Your task to perform on an android device: turn off translation in the chrome app Image 0: 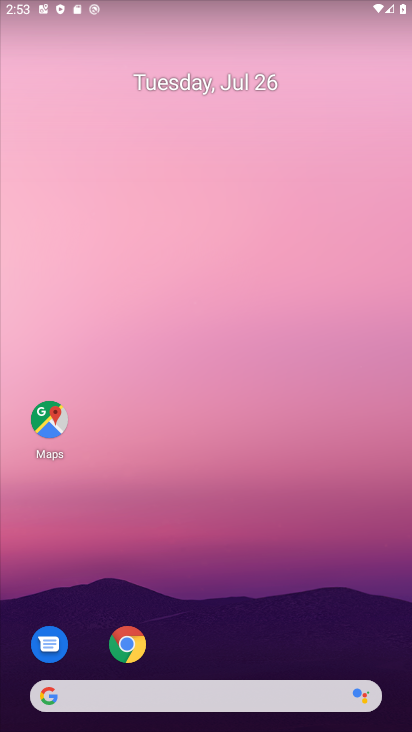
Step 0: press home button
Your task to perform on an android device: turn off translation in the chrome app Image 1: 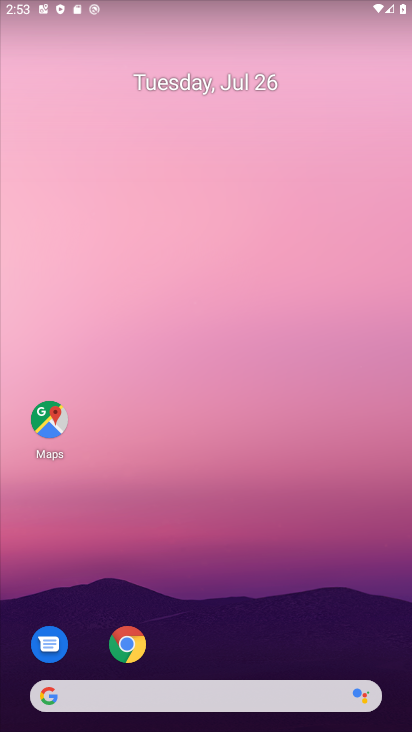
Step 1: click (127, 655)
Your task to perform on an android device: turn off translation in the chrome app Image 2: 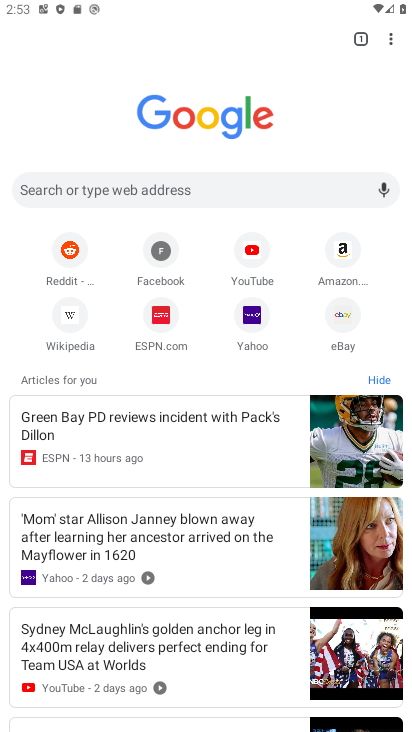
Step 2: drag from (393, 38) to (259, 329)
Your task to perform on an android device: turn off translation in the chrome app Image 3: 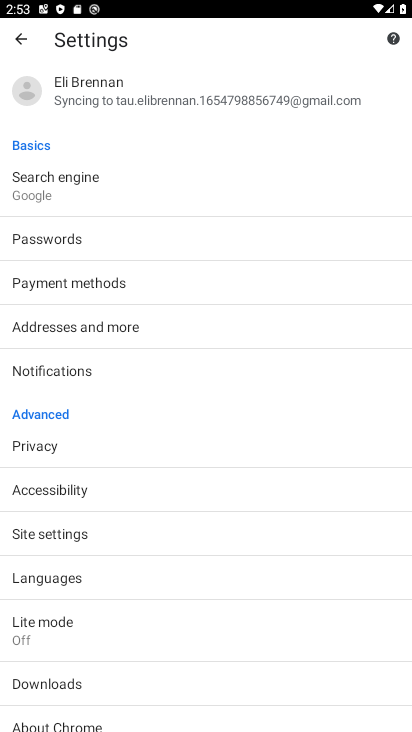
Step 3: click (85, 573)
Your task to perform on an android device: turn off translation in the chrome app Image 4: 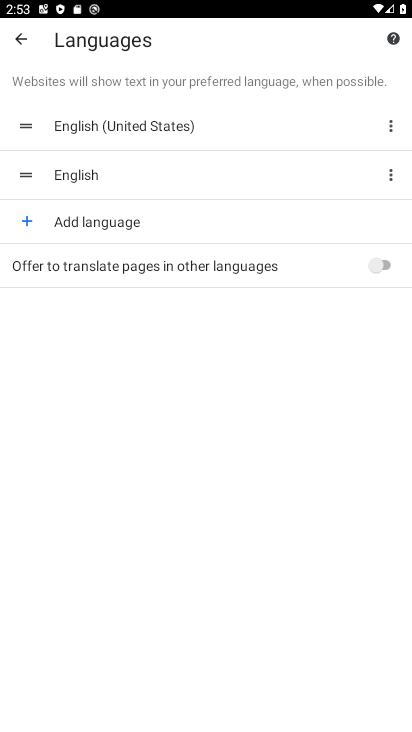
Step 4: task complete